Your task to perform on an android device: move a message to another label in the gmail app Image 0: 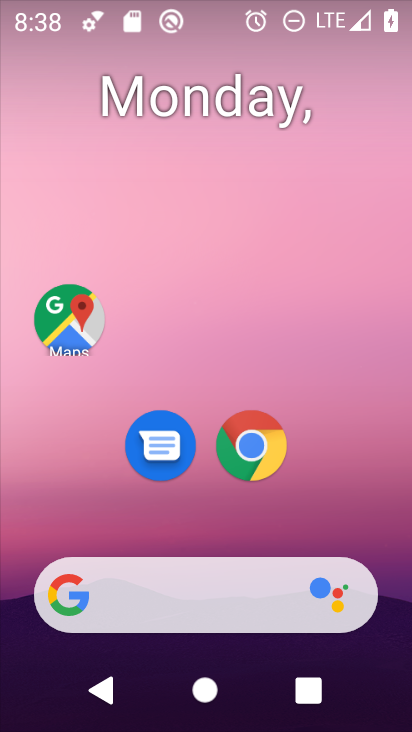
Step 0: drag from (331, 500) to (231, 57)
Your task to perform on an android device: move a message to another label in the gmail app Image 1: 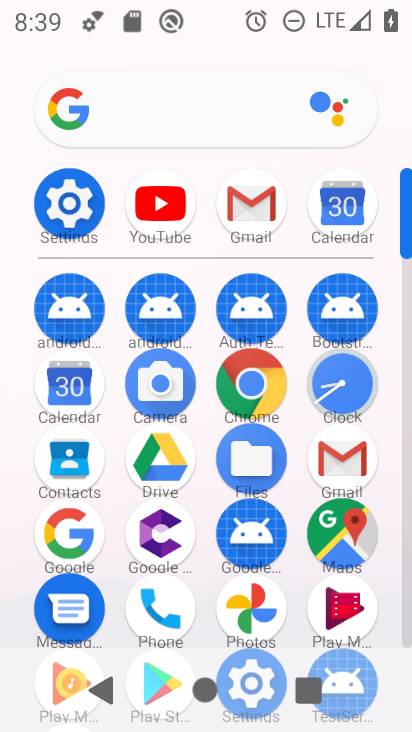
Step 1: click (324, 454)
Your task to perform on an android device: move a message to another label in the gmail app Image 2: 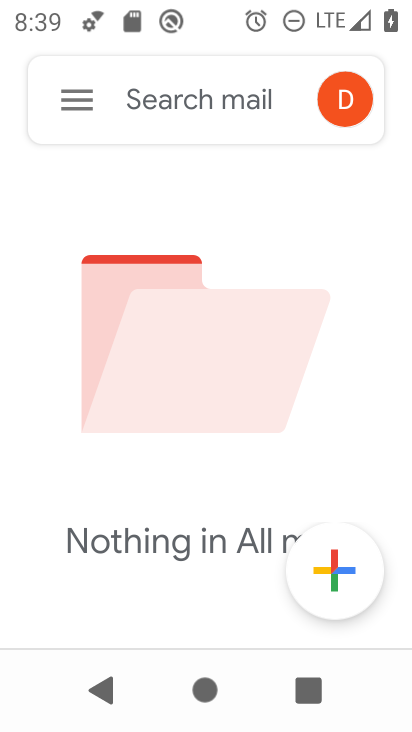
Step 2: task complete